Your task to perform on an android device: turn off javascript in the chrome app Image 0: 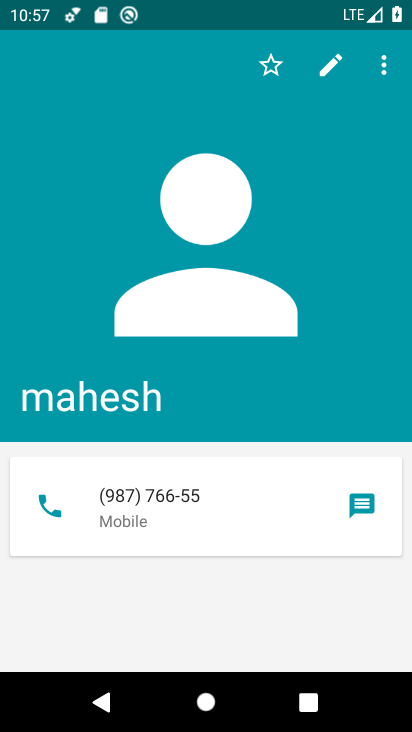
Step 0: press home button
Your task to perform on an android device: turn off javascript in the chrome app Image 1: 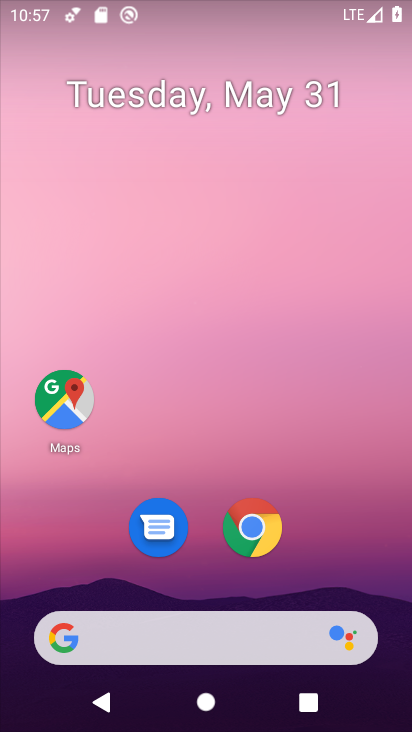
Step 1: click (258, 529)
Your task to perform on an android device: turn off javascript in the chrome app Image 2: 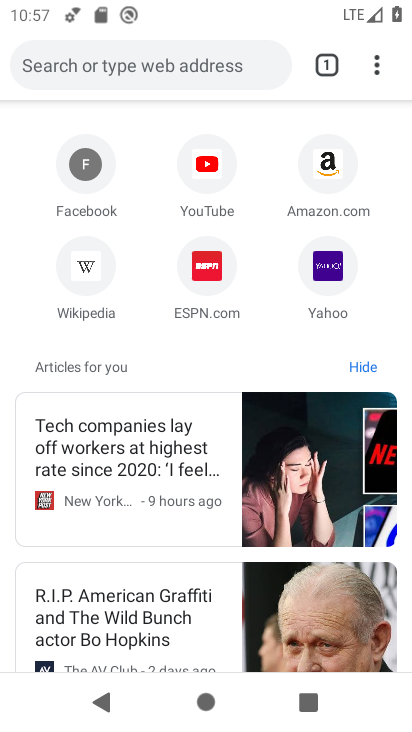
Step 2: click (377, 72)
Your task to perform on an android device: turn off javascript in the chrome app Image 3: 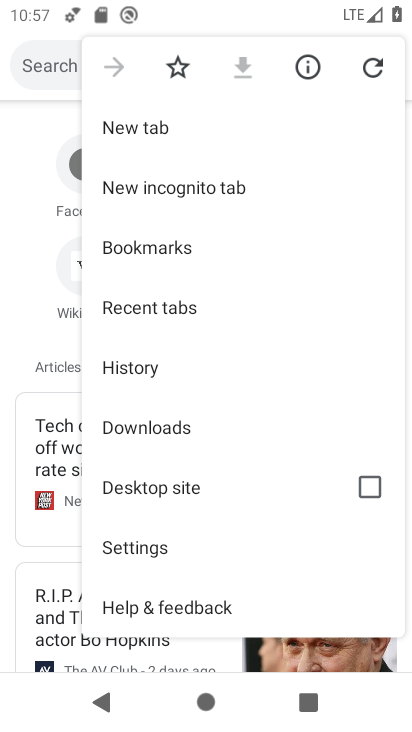
Step 3: click (152, 545)
Your task to perform on an android device: turn off javascript in the chrome app Image 4: 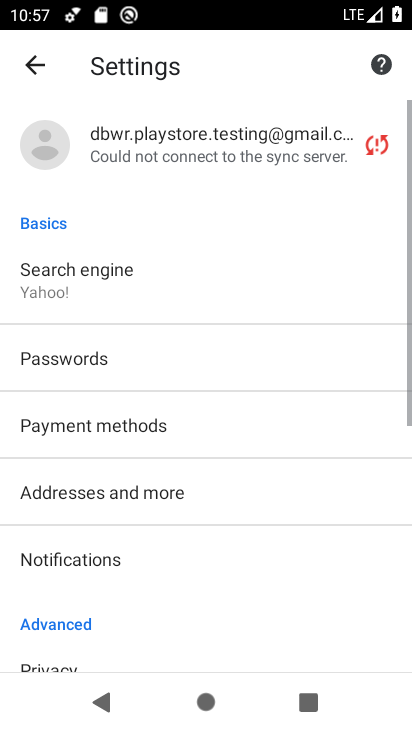
Step 4: drag from (152, 532) to (167, 147)
Your task to perform on an android device: turn off javascript in the chrome app Image 5: 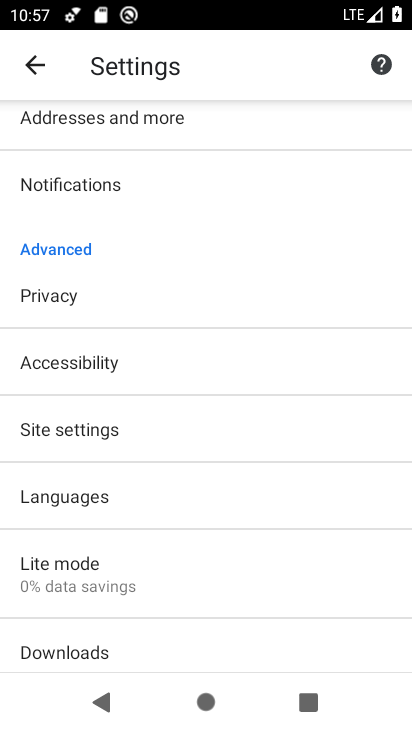
Step 5: click (82, 426)
Your task to perform on an android device: turn off javascript in the chrome app Image 6: 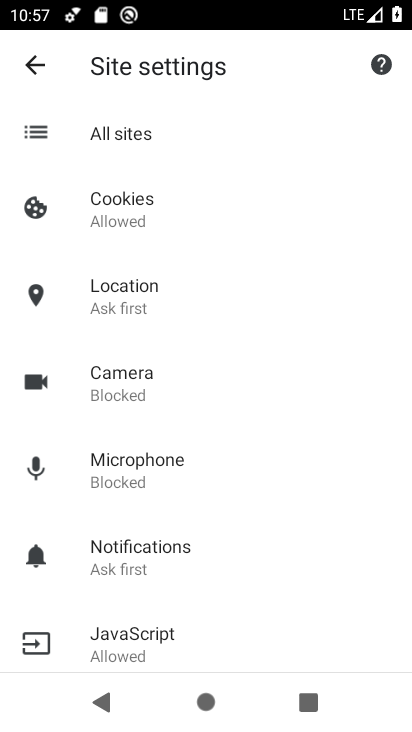
Step 6: click (156, 626)
Your task to perform on an android device: turn off javascript in the chrome app Image 7: 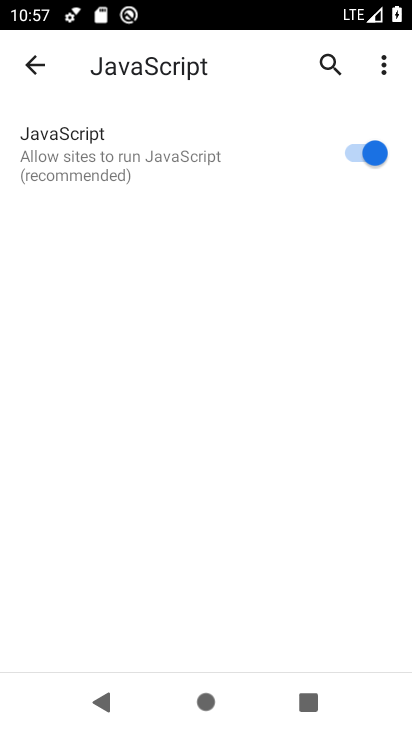
Step 7: click (366, 154)
Your task to perform on an android device: turn off javascript in the chrome app Image 8: 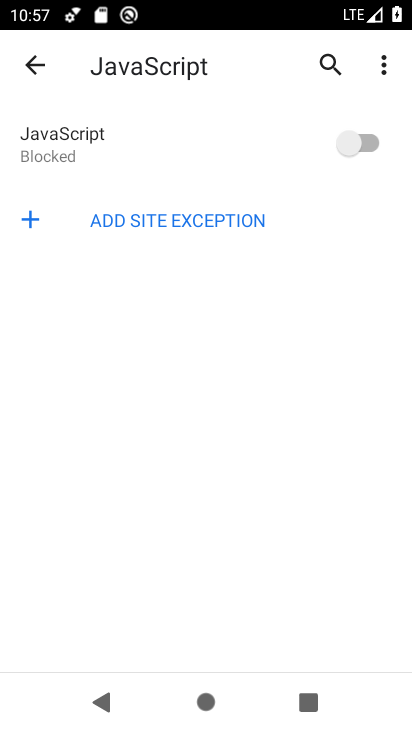
Step 8: task complete